Your task to perform on an android device: Go to accessibility settings Image 0: 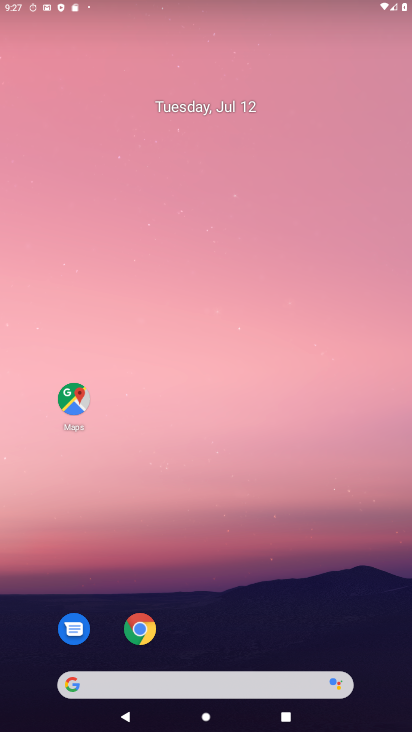
Step 0: drag from (257, 675) to (145, 215)
Your task to perform on an android device: Go to accessibility settings Image 1: 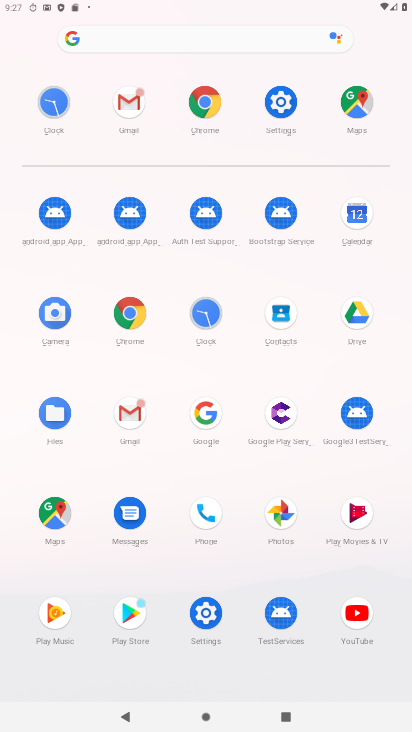
Step 1: click (263, 100)
Your task to perform on an android device: Go to accessibility settings Image 2: 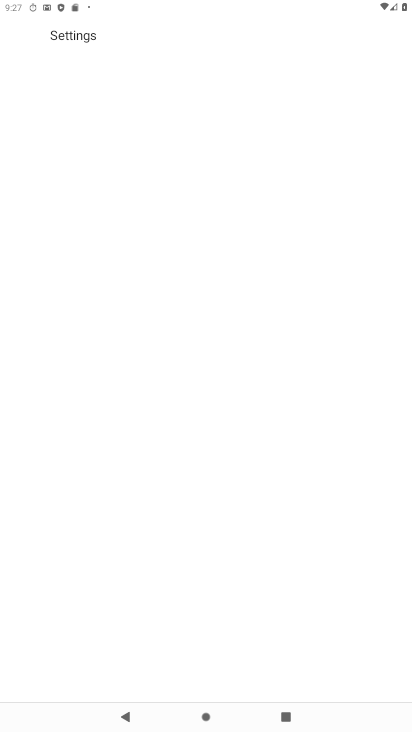
Step 2: click (281, 102)
Your task to perform on an android device: Go to accessibility settings Image 3: 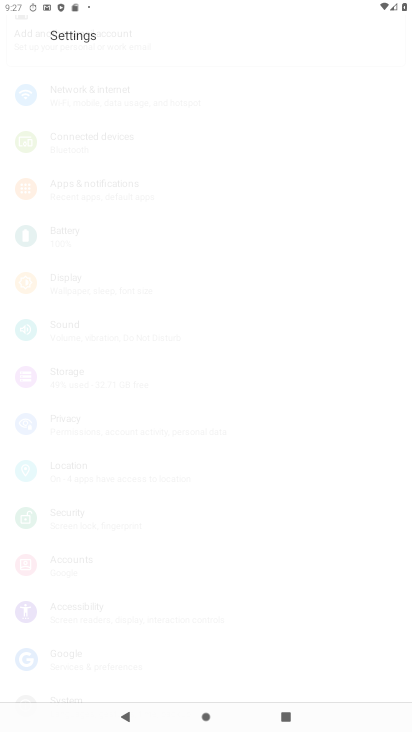
Step 3: click (281, 102)
Your task to perform on an android device: Go to accessibility settings Image 4: 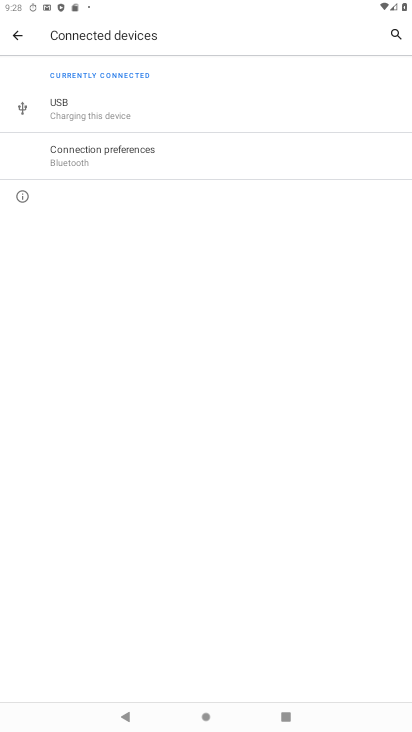
Step 4: click (26, 39)
Your task to perform on an android device: Go to accessibility settings Image 5: 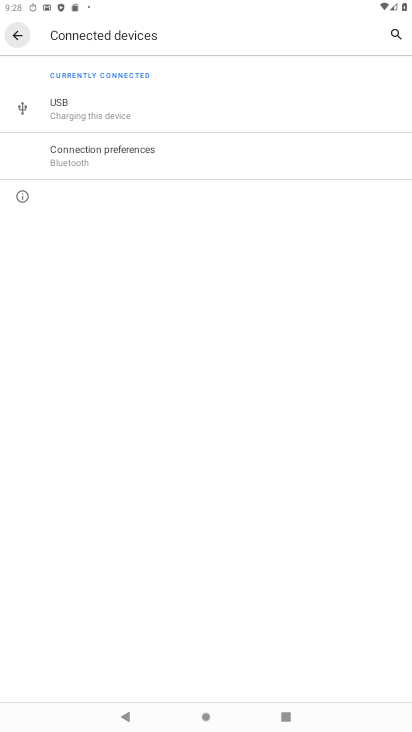
Step 5: click (26, 39)
Your task to perform on an android device: Go to accessibility settings Image 6: 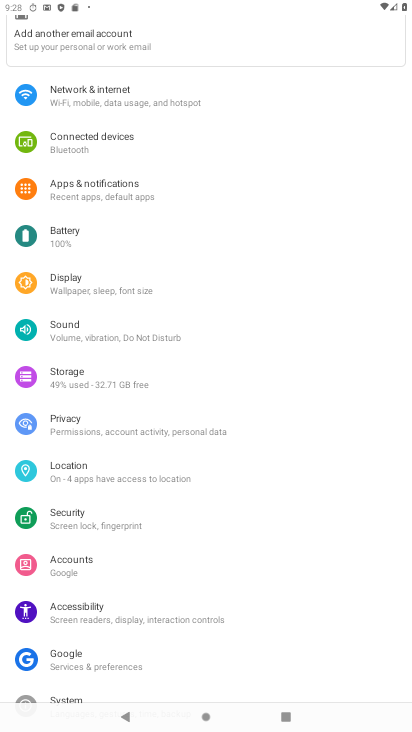
Step 6: drag from (197, 544) to (189, 173)
Your task to perform on an android device: Go to accessibility settings Image 7: 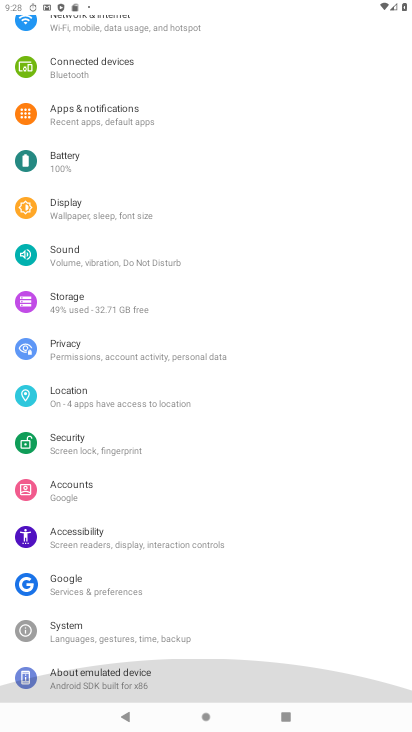
Step 7: drag from (146, 550) to (127, 277)
Your task to perform on an android device: Go to accessibility settings Image 8: 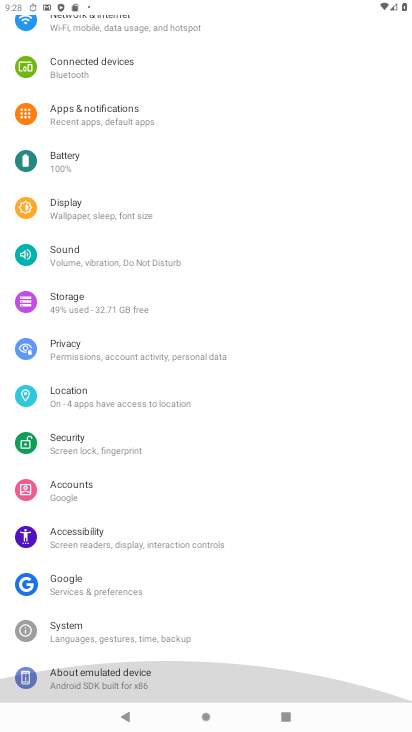
Step 8: drag from (125, 530) to (125, 202)
Your task to perform on an android device: Go to accessibility settings Image 9: 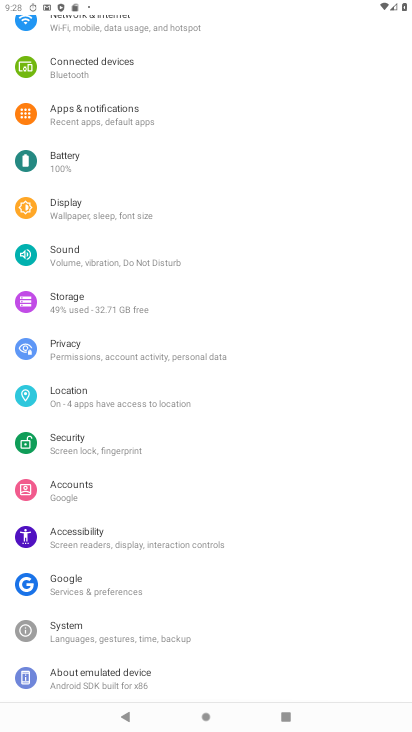
Step 9: click (94, 689)
Your task to perform on an android device: Go to accessibility settings Image 10: 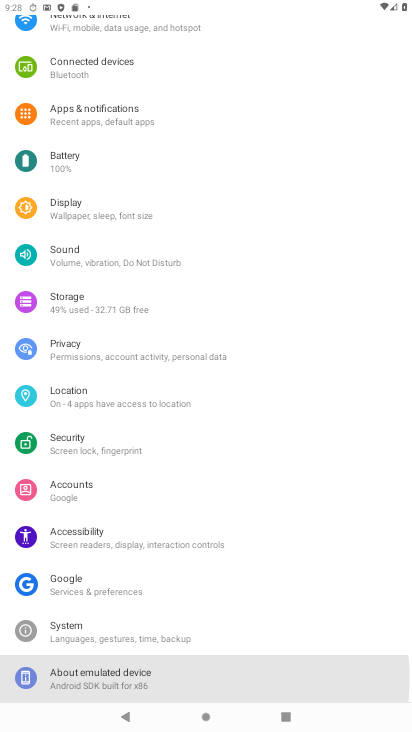
Step 10: click (93, 685)
Your task to perform on an android device: Go to accessibility settings Image 11: 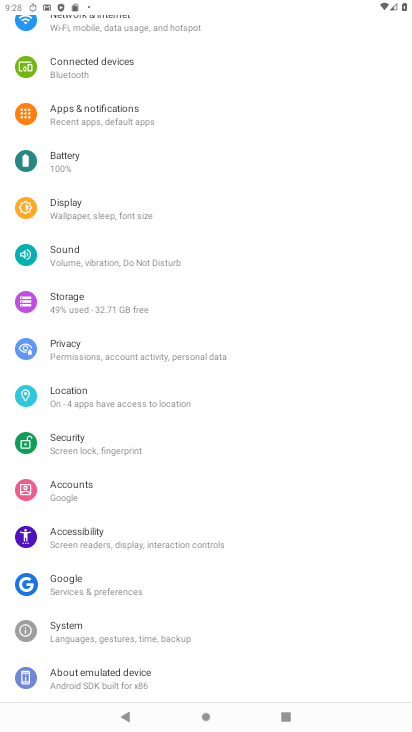
Step 11: click (93, 684)
Your task to perform on an android device: Go to accessibility settings Image 12: 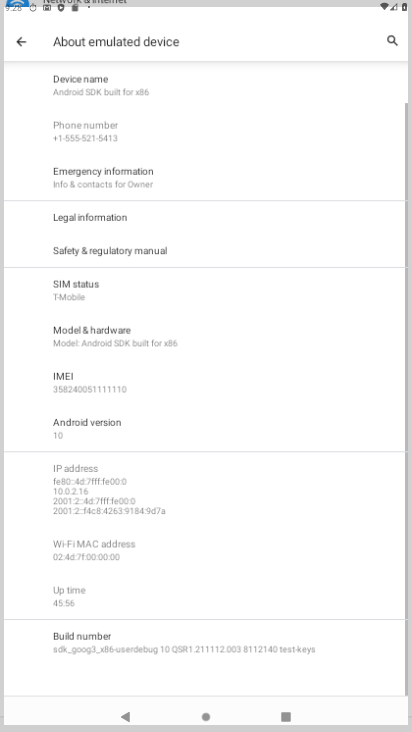
Step 12: click (91, 681)
Your task to perform on an android device: Go to accessibility settings Image 13: 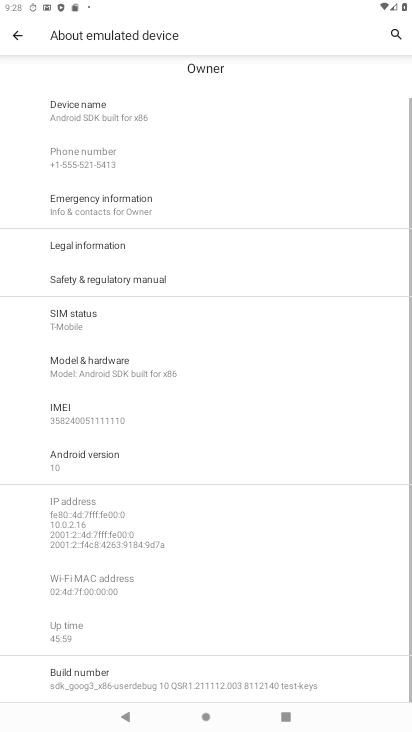
Step 13: click (22, 29)
Your task to perform on an android device: Go to accessibility settings Image 14: 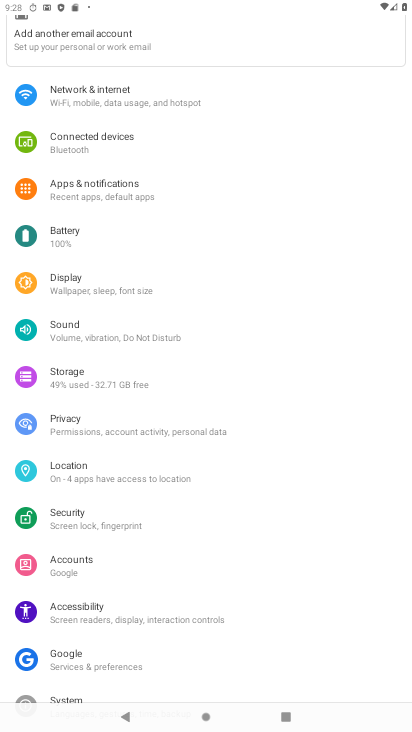
Step 14: click (88, 601)
Your task to perform on an android device: Go to accessibility settings Image 15: 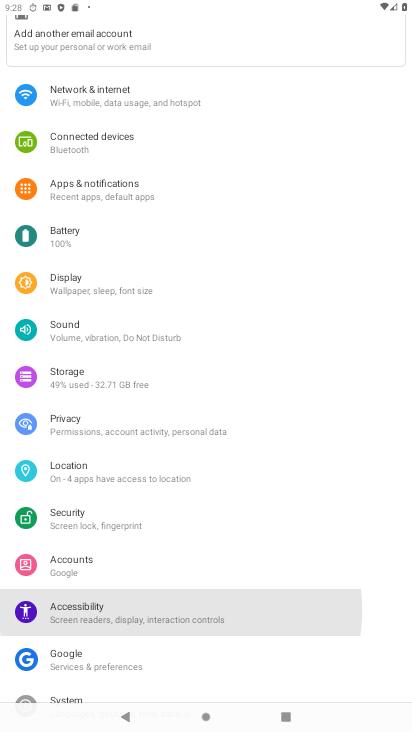
Step 15: click (90, 599)
Your task to perform on an android device: Go to accessibility settings Image 16: 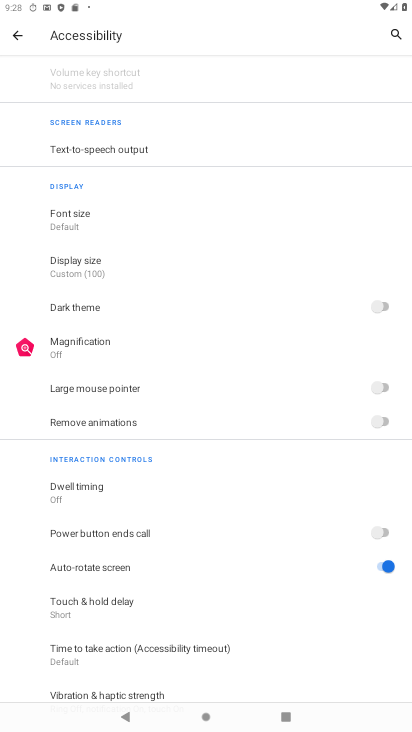
Step 16: task complete